Your task to perform on an android device: find which apps use the phone's location Image 0: 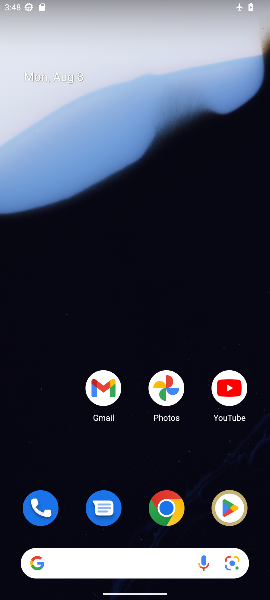
Step 0: drag from (133, 456) to (180, 38)
Your task to perform on an android device: find which apps use the phone's location Image 1: 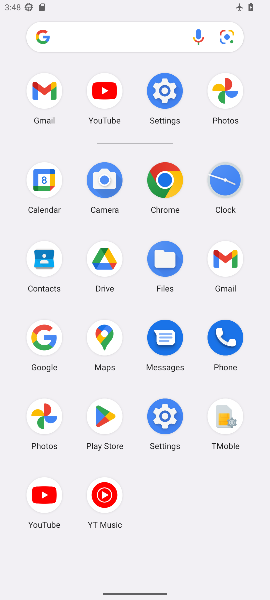
Step 1: click (162, 88)
Your task to perform on an android device: find which apps use the phone's location Image 2: 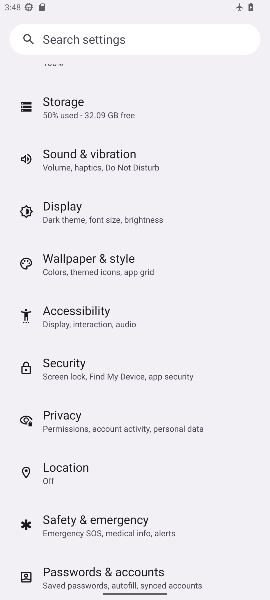
Step 2: click (66, 467)
Your task to perform on an android device: find which apps use the phone's location Image 3: 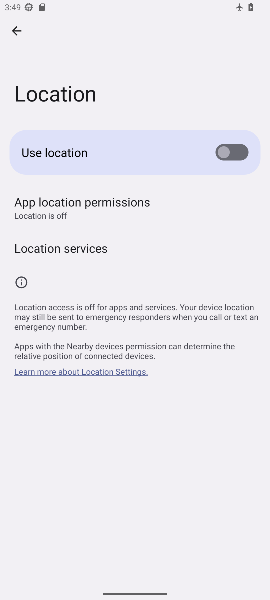
Step 3: task complete